Your task to perform on an android device: Show me popular games on the Play Store Image 0: 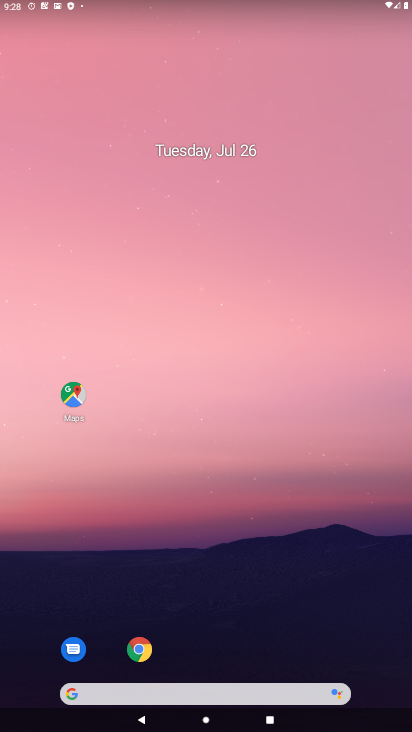
Step 0: drag from (224, 648) to (248, 98)
Your task to perform on an android device: Show me popular games on the Play Store Image 1: 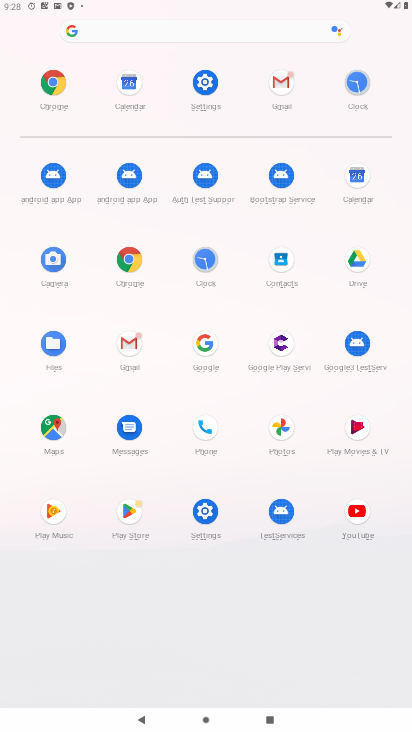
Step 1: click (129, 521)
Your task to perform on an android device: Show me popular games on the Play Store Image 2: 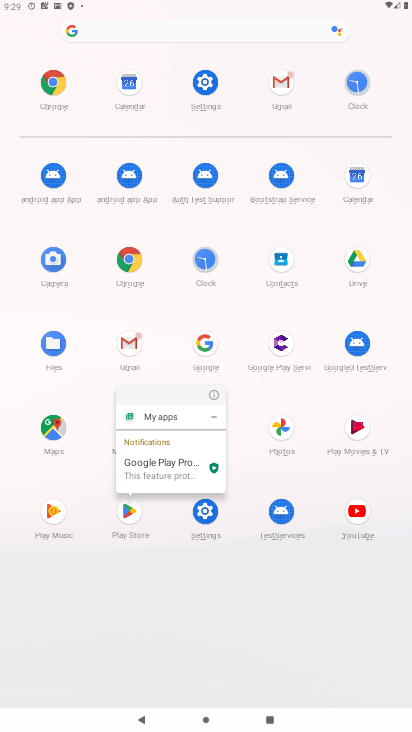
Step 2: click (216, 400)
Your task to perform on an android device: Show me popular games on the Play Store Image 3: 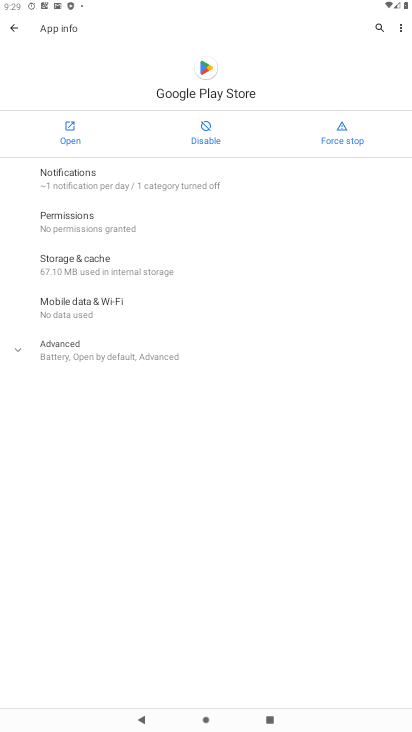
Step 3: click (80, 144)
Your task to perform on an android device: Show me popular games on the Play Store Image 4: 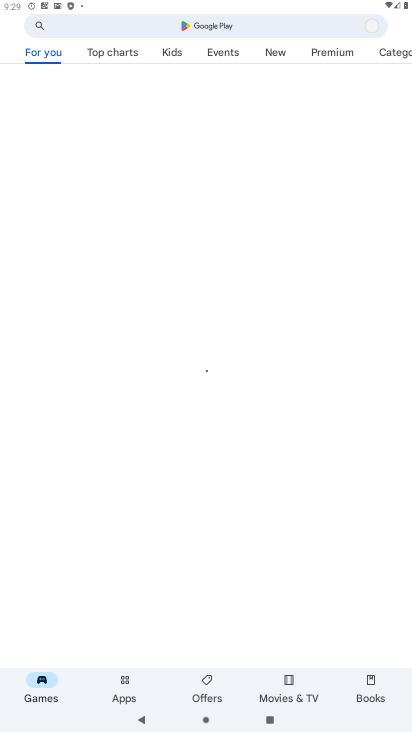
Step 4: drag from (74, 539) to (188, 119)
Your task to perform on an android device: Show me popular games on the Play Store Image 5: 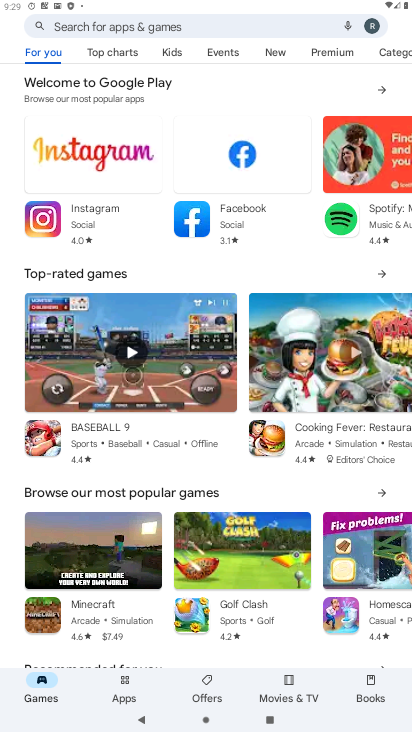
Step 5: drag from (241, 561) to (341, 202)
Your task to perform on an android device: Show me popular games on the Play Store Image 6: 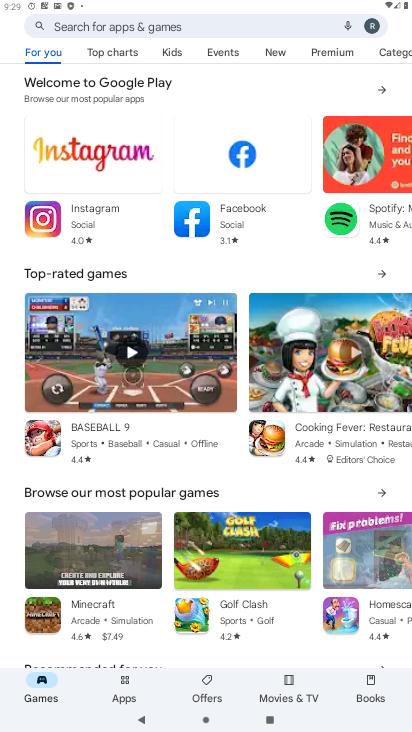
Step 6: click (384, 491)
Your task to perform on an android device: Show me popular games on the Play Store Image 7: 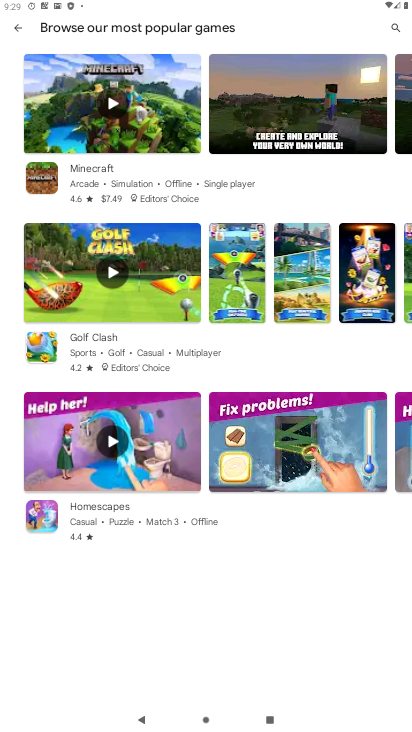
Step 7: task complete